Your task to perform on an android device: toggle sleep mode Image 0: 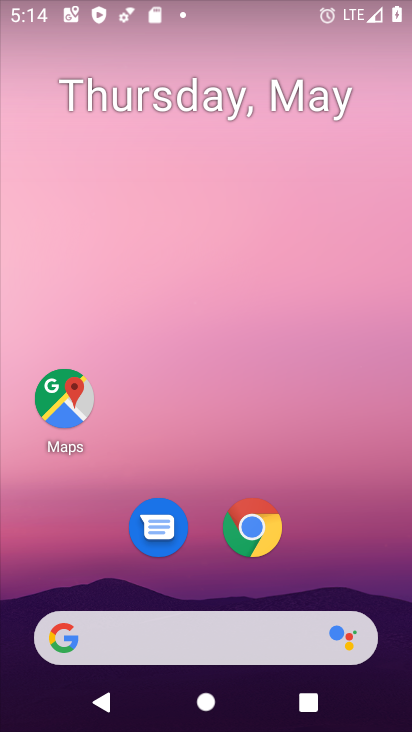
Step 0: drag from (325, 543) to (282, 104)
Your task to perform on an android device: toggle sleep mode Image 1: 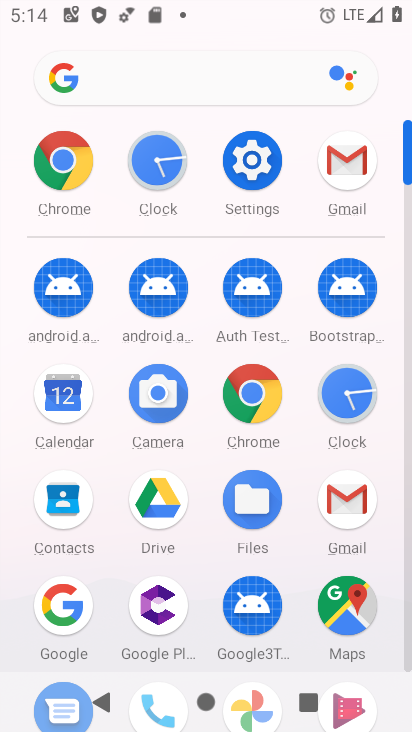
Step 1: click (229, 166)
Your task to perform on an android device: toggle sleep mode Image 2: 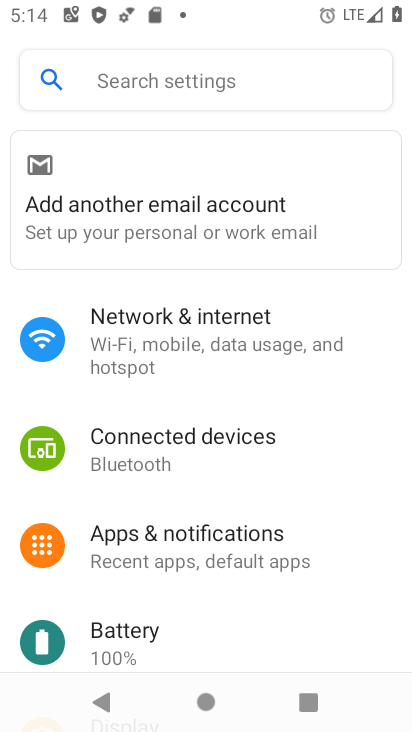
Step 2: drag from (222, 590) to (227, 185)
Your task to perform on an android device: toggle sleep mode Image 3: 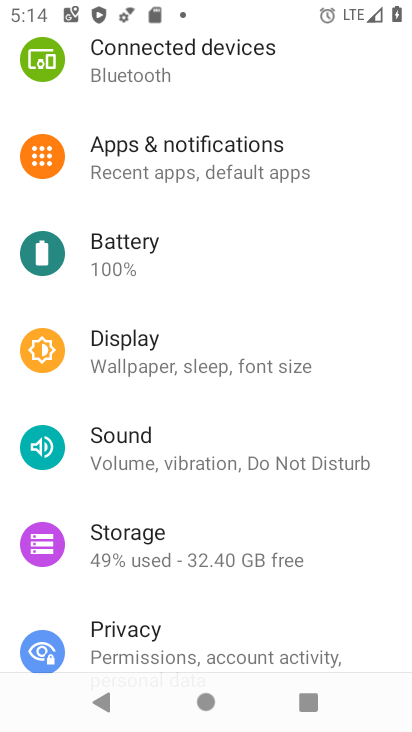
Step 3: click (142, 359)
Your task to perform on an android device: toggle sleep mode Image 4: 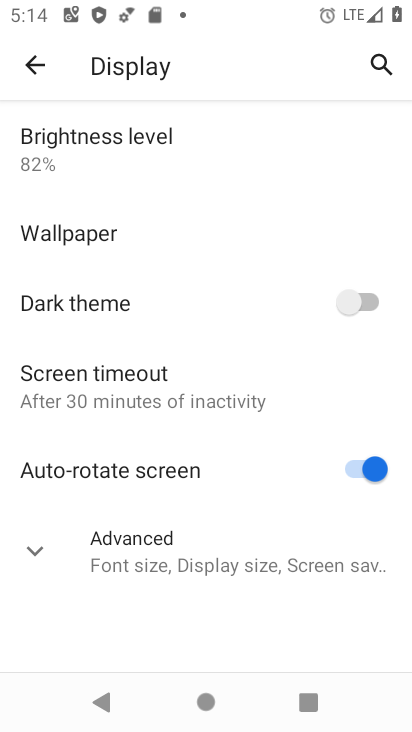
Step 4: click (142, 376)
Your task to perform on an android device: toggle sleep mode Image 5: 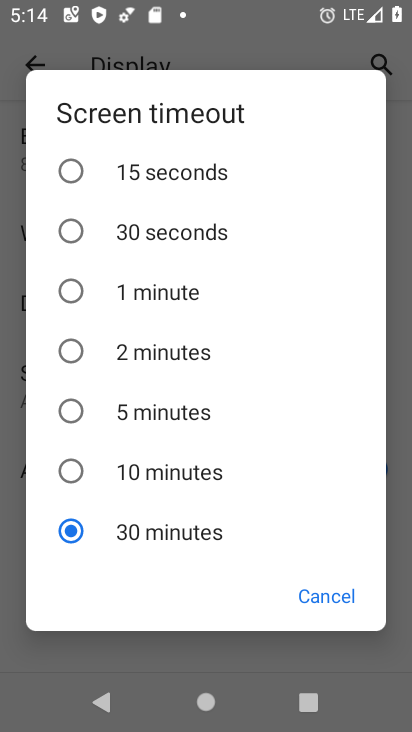
Step 5: click (141, 361)
Your task to perform on an android device: toggle sleep mode Image 6: 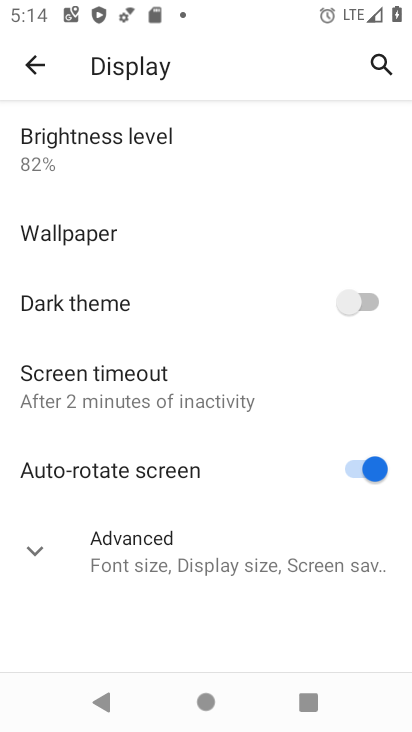
Step 6: task complete